Your task to perform on an android device: turn off data saver in the chrome app Image 0: 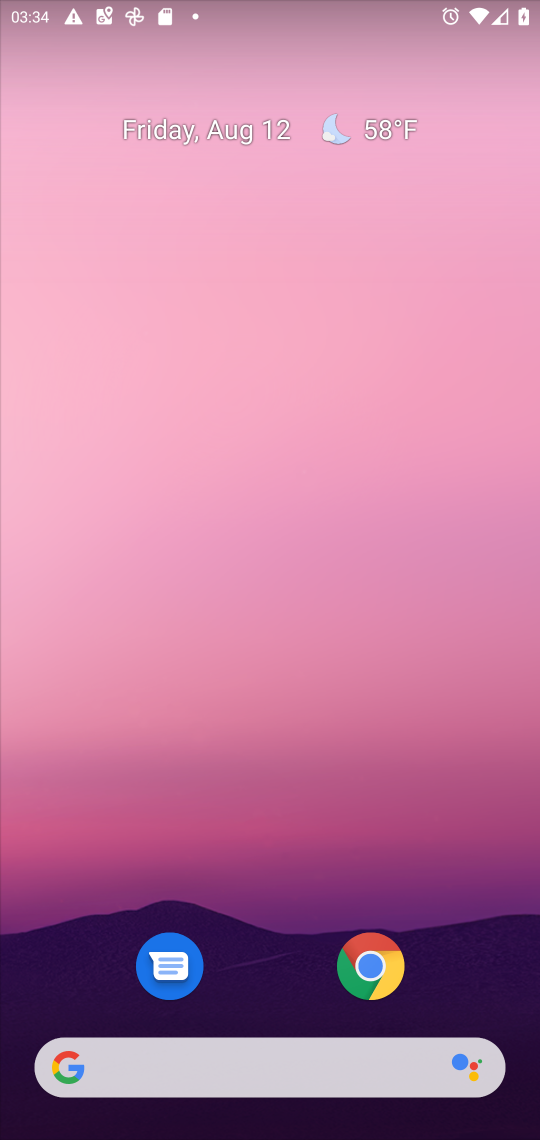
Step 0: drag from (226, 819) to (321, 98)
Your task to perform on an android device: turn off data saver in the chrome app Image 1: 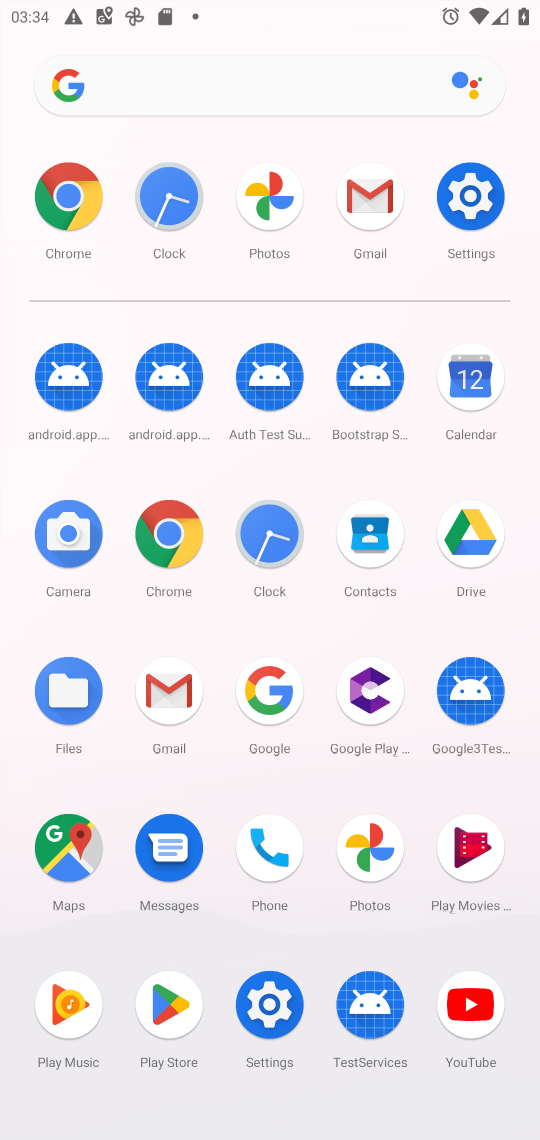
Step 1: click (174, 540)
Your task to perform on an android device: turn off data saver in the chrome app Image 2: 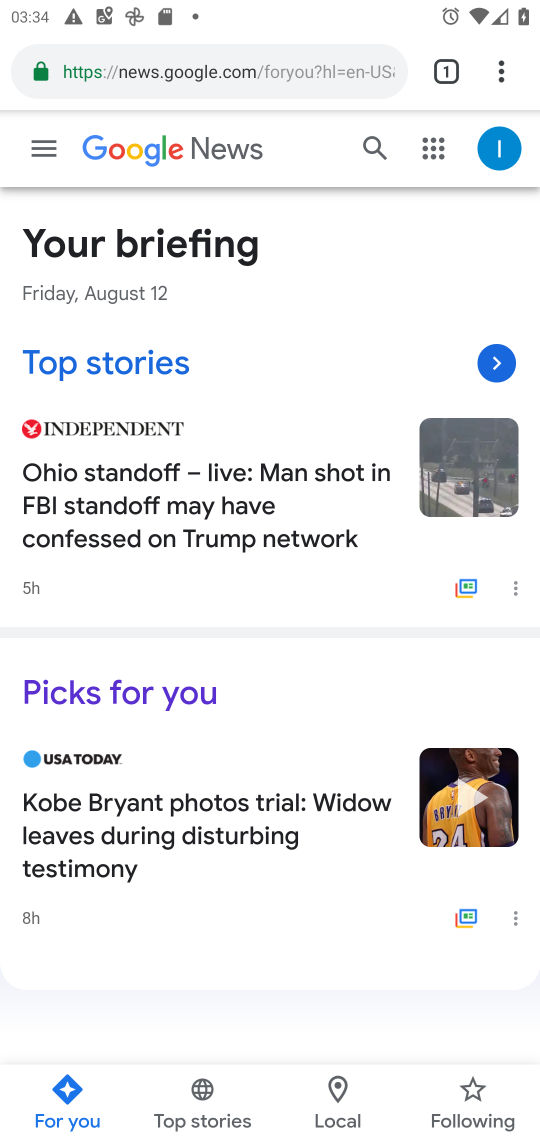
Step 2: drag from (508, 77) to (239, 869)
Your task to perform on an android device: turn off data saver in the chrome app Image 3: 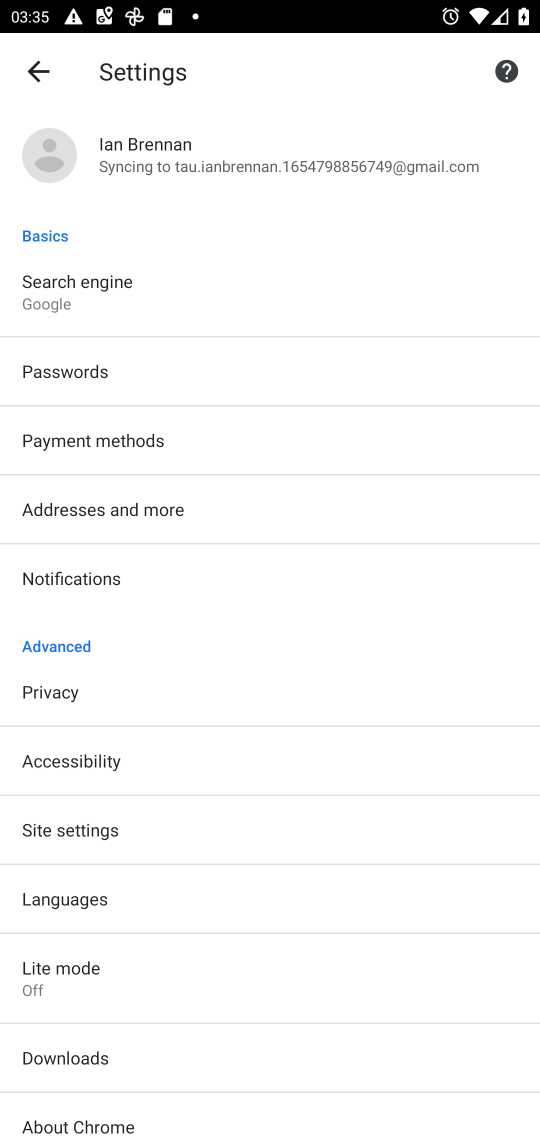
Step 3: click (107, 969)
Your task to perform on an android device: turn off data saver in the chrome app Image 4: 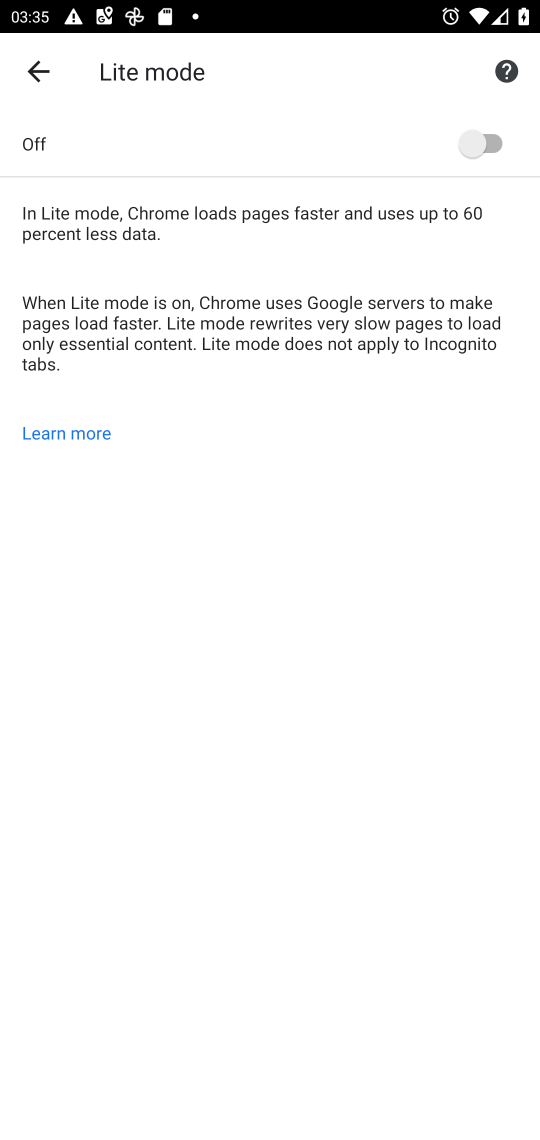
Step 4: task complete